Your task to perform on an android device: open the mobile data screen to see how much data has been used Image 0: 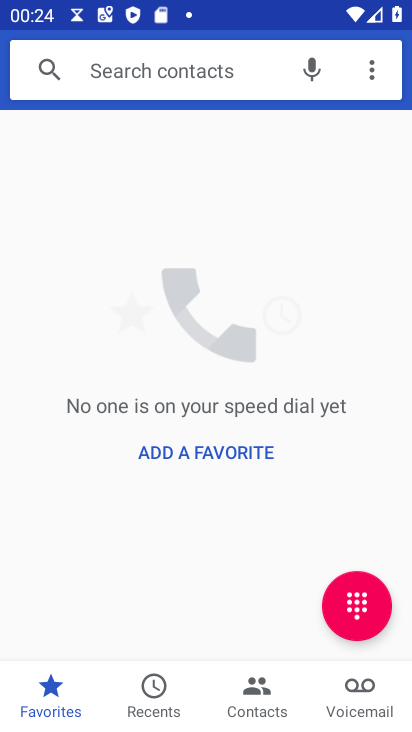
Step 0: press home button
Your task to perform on an android device: open the mobile data screen to see how much data has been used Image 1: 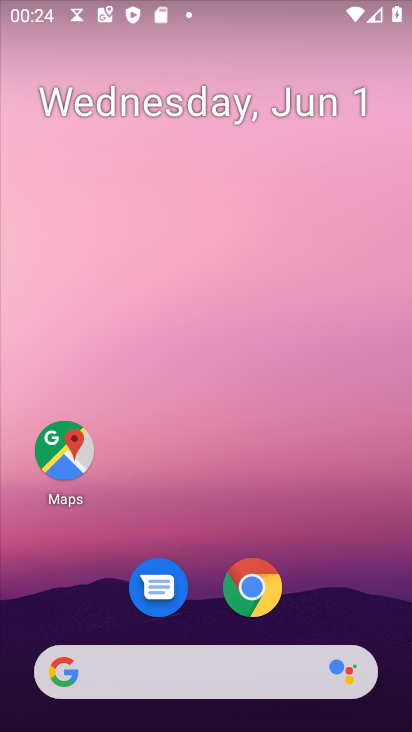
Step 1: drag from (320, 549) to (307, 4)
Your task to perform on an android device: open the mobile data screen to see how much data has been used Image 2: 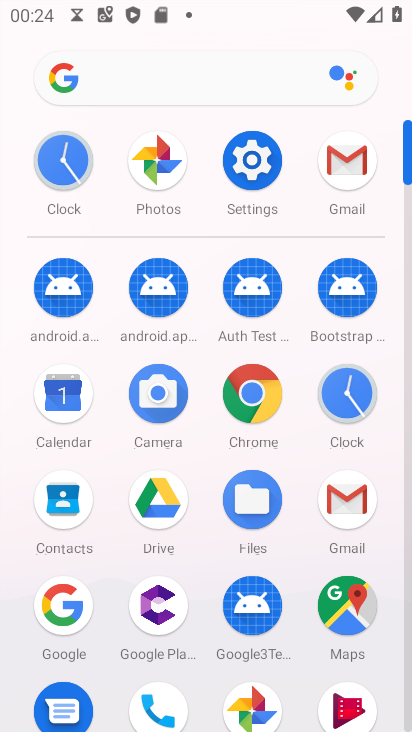
Step 2: click (238, 161)
Your task to perform on an android device: open the mobile data screen to see how much data has been used Image 3: 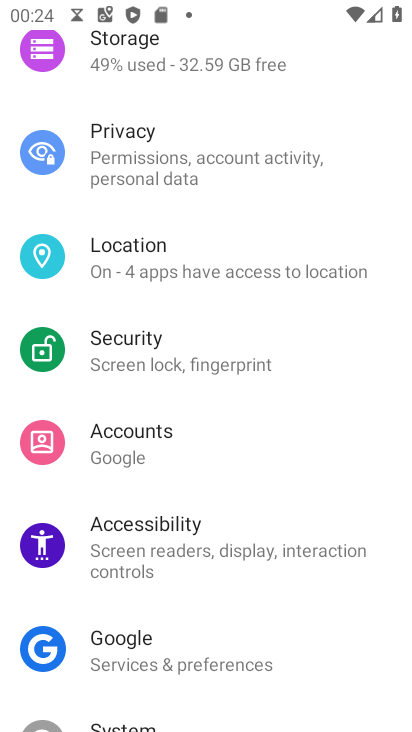
Step 3: drag from (230, 173) to (234, 642)
Your task to perform on an android device: open the mobile data screen to see how much data has been used Image 4: 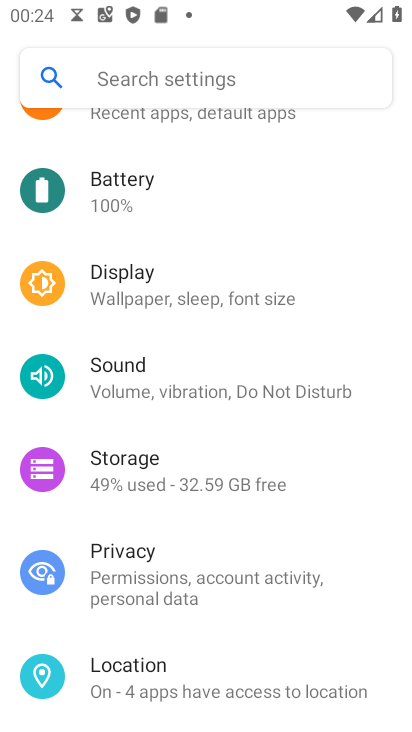
Step 4: drag from (255, 228) to (185, 647)
Your task to perform on an android device: open the mobile data screen to see how much data has been used Image 5: 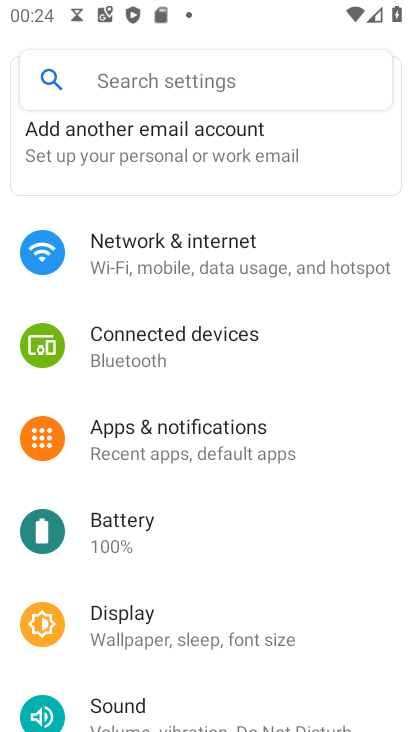
Step 5: click (202, 245)
Your task to perform on an android device: open the mobile data screen to see how much data has been used Image 6: 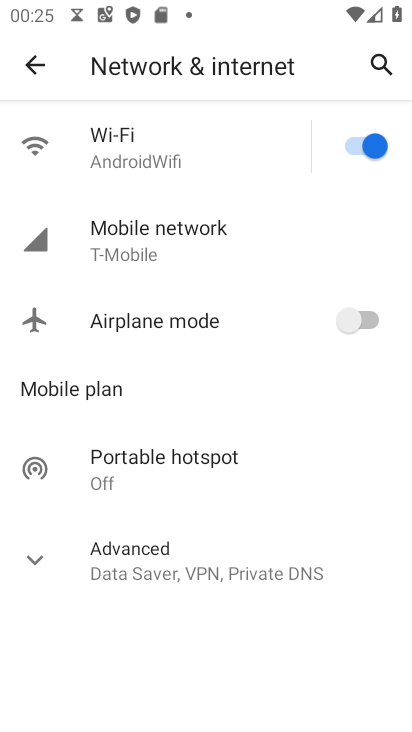
Step 6: click (160, 245)
Your task to perform on an android device: open the mobile data screen to see how much data has been used Image 7: 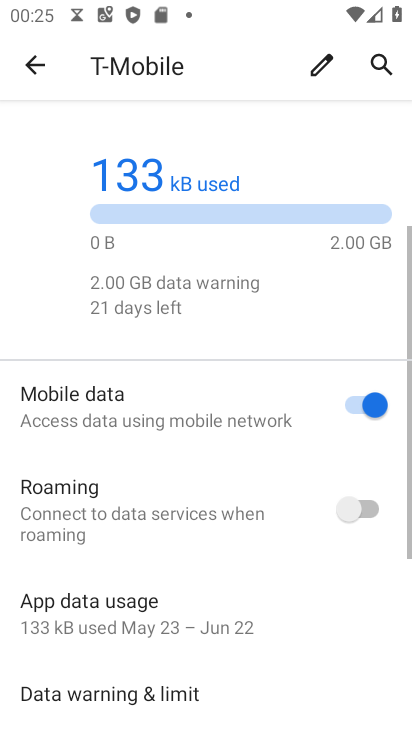
Step 7: click (161, 629)
Your task to perform on an android device: open the mobile data screen to see how much data has been used Image 8: 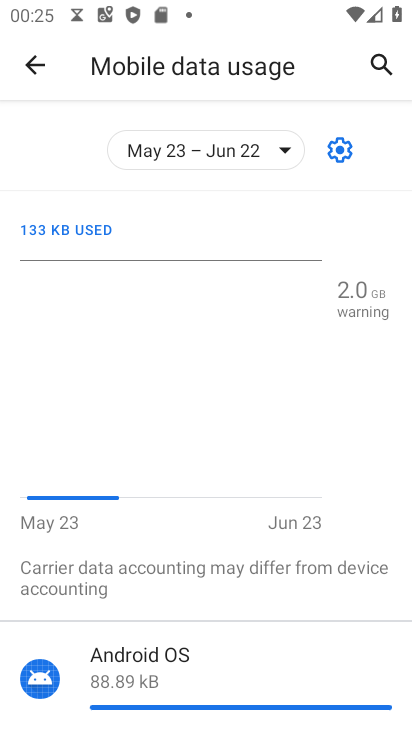
Step 8: task complete